Your task to perform on an android device: Is it going to rain this weekend? Image 0: 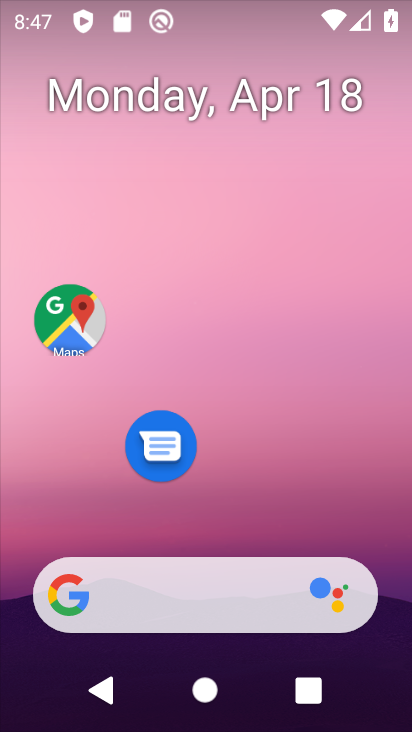
Step 0: press home button
Your task to perform on an android device: Is it going to rain this weekend? Image 1: 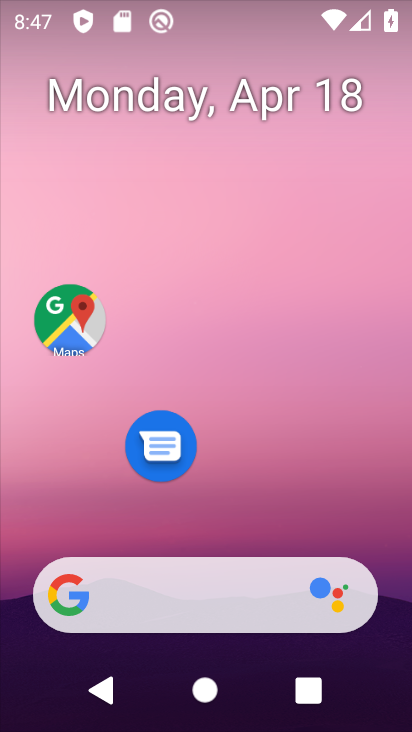
Step 1: task complete